Your task to perform on an android device: Go to settings Image 0: 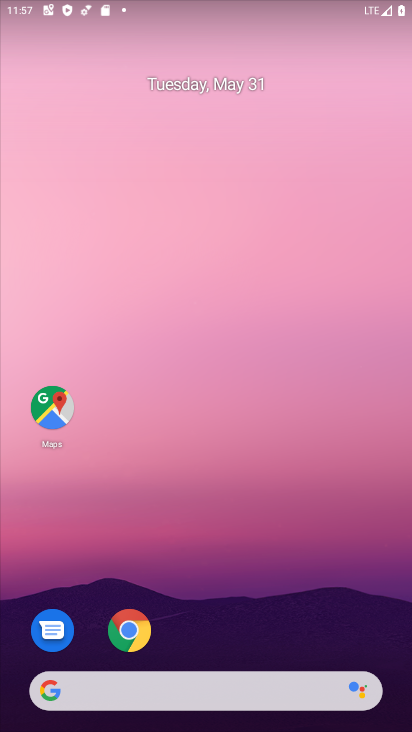
Step 0: press home button
Your task to perform on an android device: Go to settings Image 1: 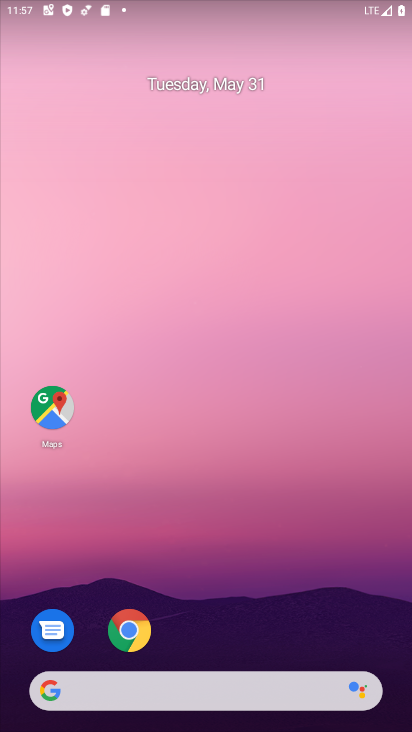
Step 1: drag from (322, 590) to (327, 155)
Your task to perform on an android device: Go to settings Image 2: 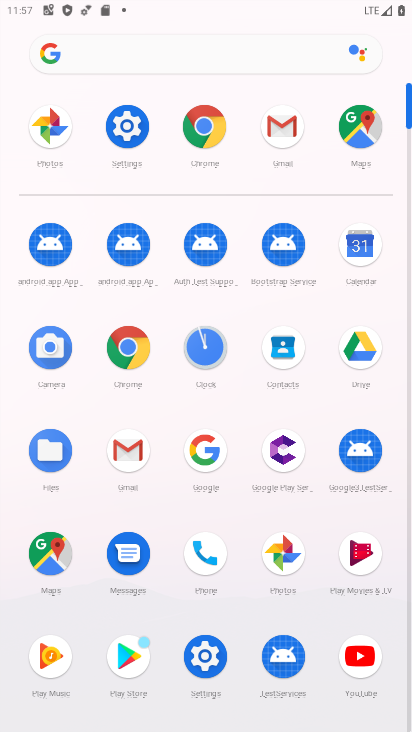
Step 2: click (117, 126)
Your task to perform on an android device: Go to settings Image 3: 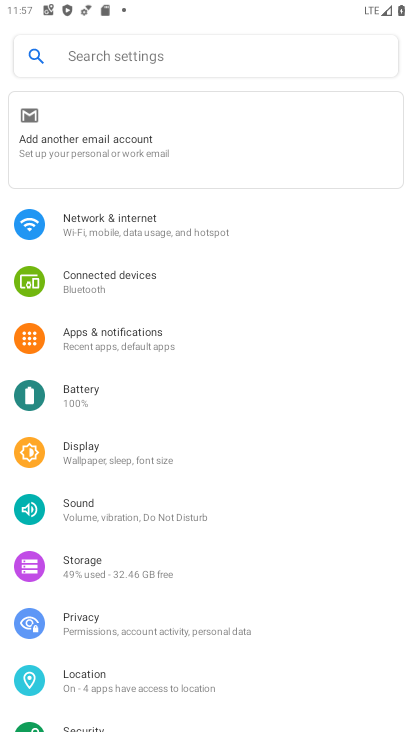
Step 3: task complete